Your task to perform on an android device: Go to internet settings Image 0: 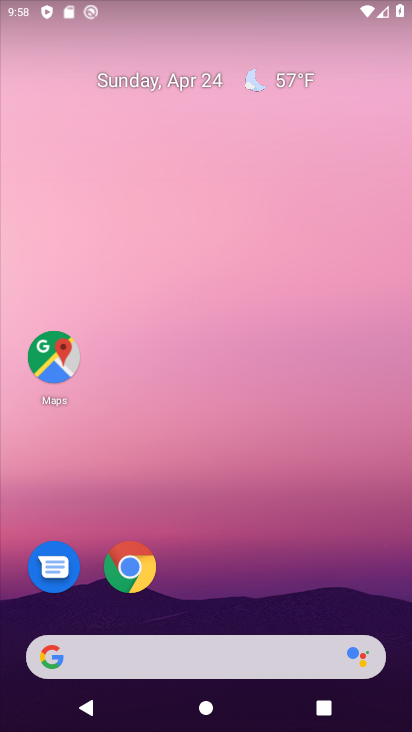
Step 0: drag from (385, 362) to (368, 86)
Your task to perform on an android device: Go to internet settings Image 1: 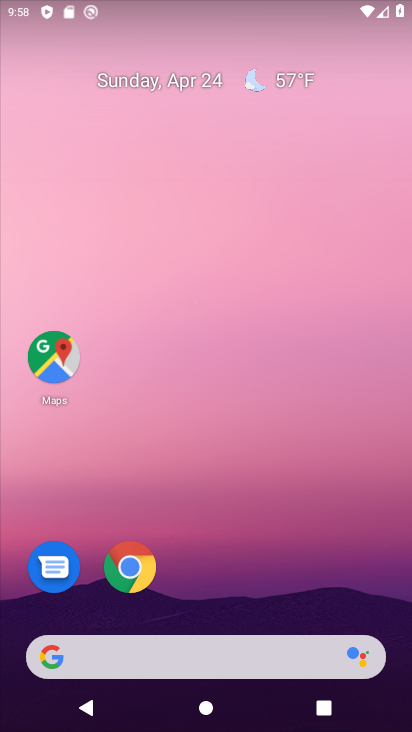
Step 1: click (387, 264)
Your task to perform on an android device: Go to internet settings Image 2: 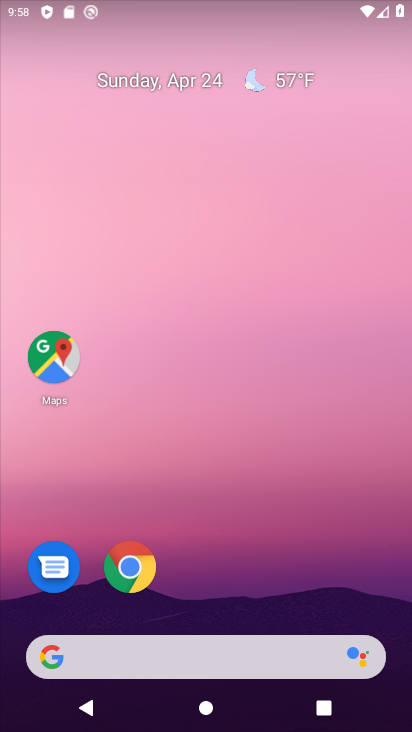
Step 2: drag from (394, 652) to (339, 244)
Your task to perform on an android device: Go to internet settings Image 3: 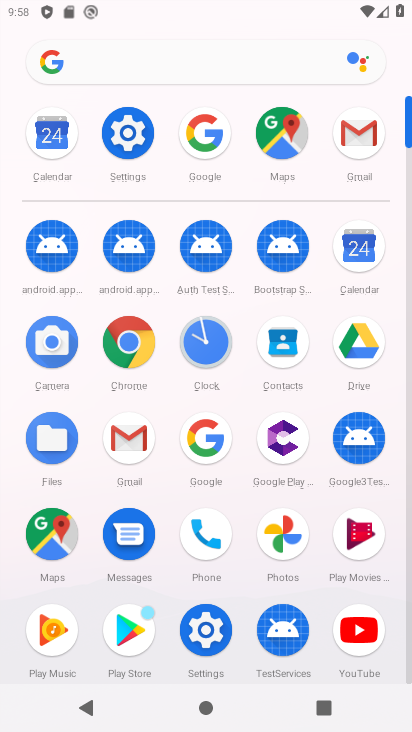
Step 3: click (134, 126)
Your task to perform on an android device: Go to internet settings Image 4: 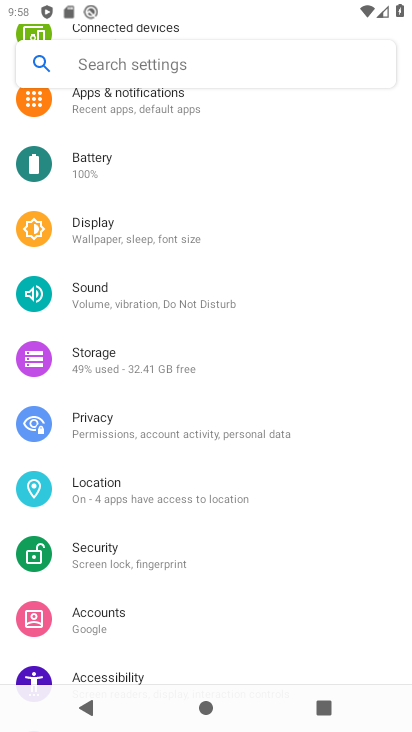
Step 4: drag from (342, 149) to (368, 560)
Your task to perform on an android device: Go to internet settings Image 5: 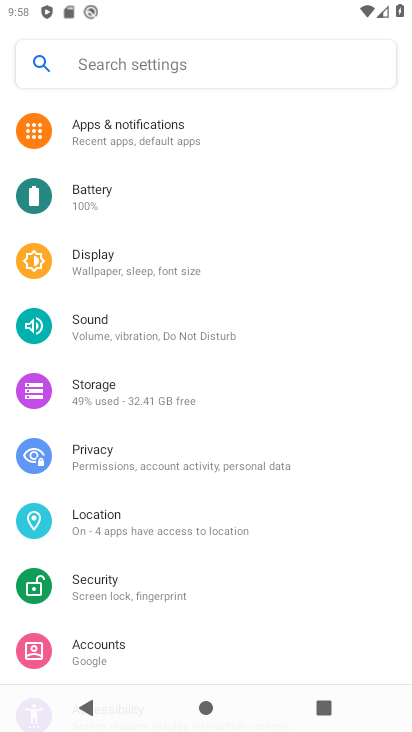
Step 5: drag from (358, 290) to (371, 510)
Your task to perform on an android device: Go to internet settings Image 6: 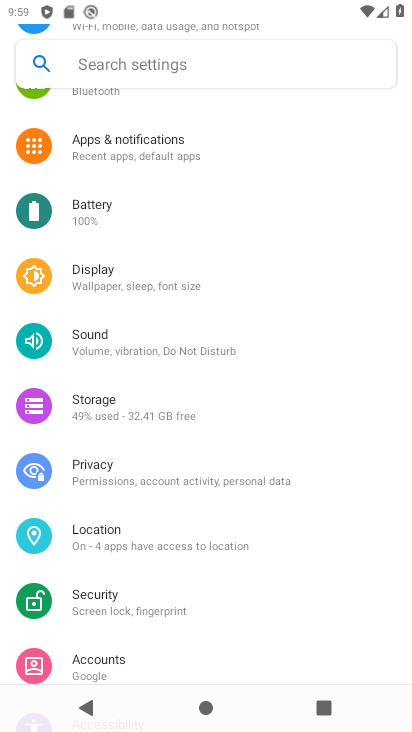
Step 6: drag from (372, 154) to (362, 646)
Your task to perform on an android device: Go to internet settings Image 7: 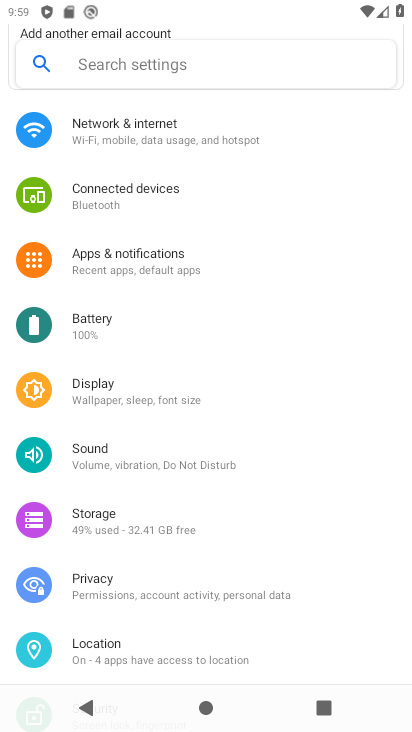
Step 7: click (392, 486)
Your task to perform on an android device: Go to internet settings Image 8: 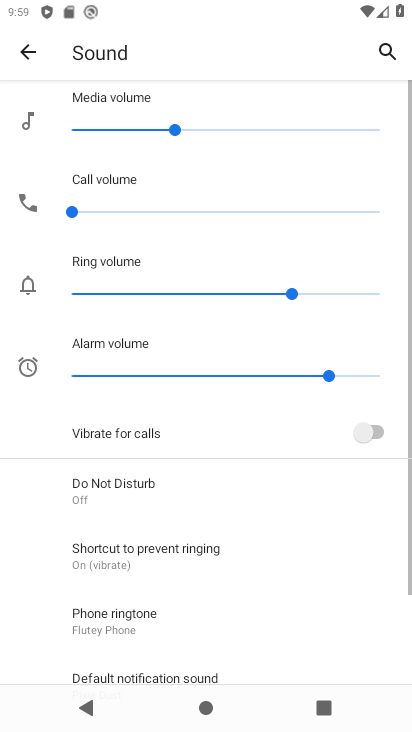
Step 8: click (28, 53)
Your task to perform on an android device: Go to internet settings Image 9: 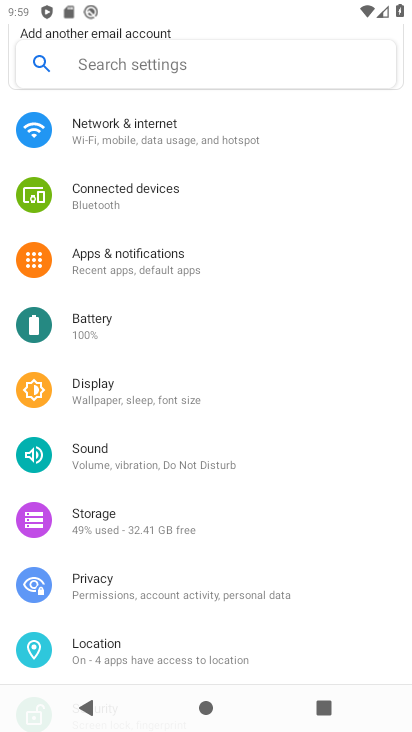
Step 9: drag from (341, 443) to (340, 498)
Your task to perform on an android device: Go to internet settings Image 10: 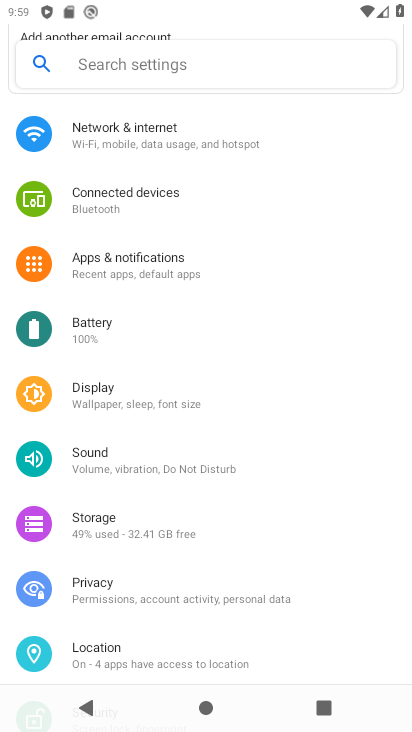
Step 10: click (120, 137)
Your task to perform on an android device: Go to internet settings Image 11: 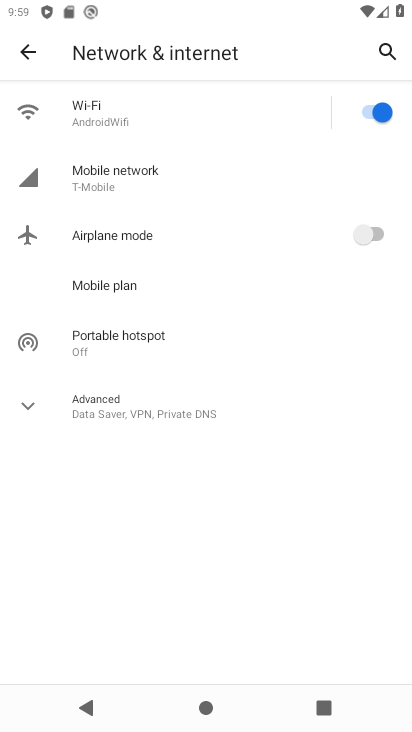
Step 11: task complete